Your task to perform on an android device: check google app version Image 0: 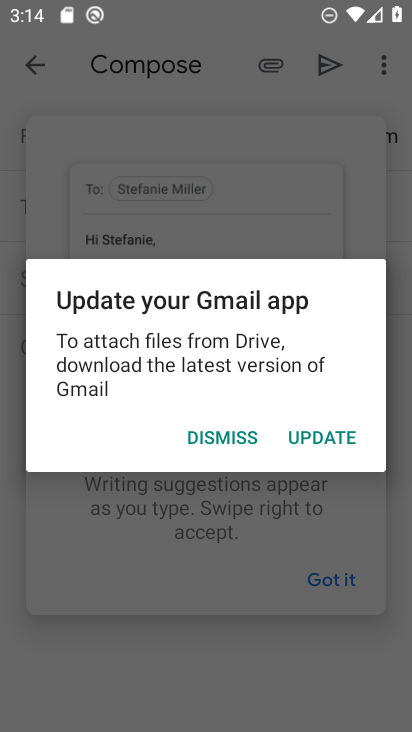
Step 0: press home button
Your task to perform on an android device: check google app version Image 1: 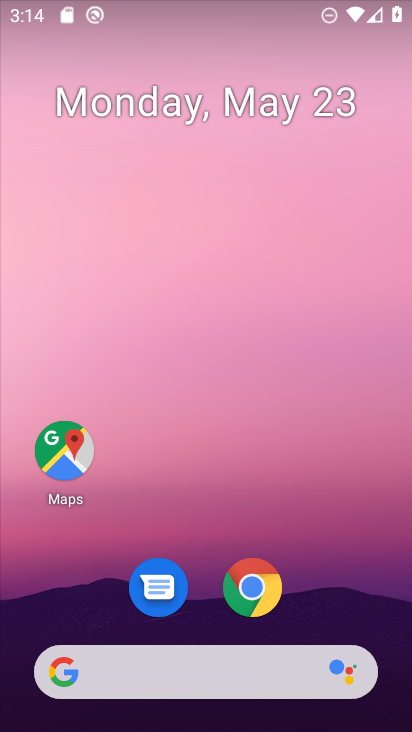
Step 1: click (227, 674)
Your task to perform on an android device: check google app version Image 2: 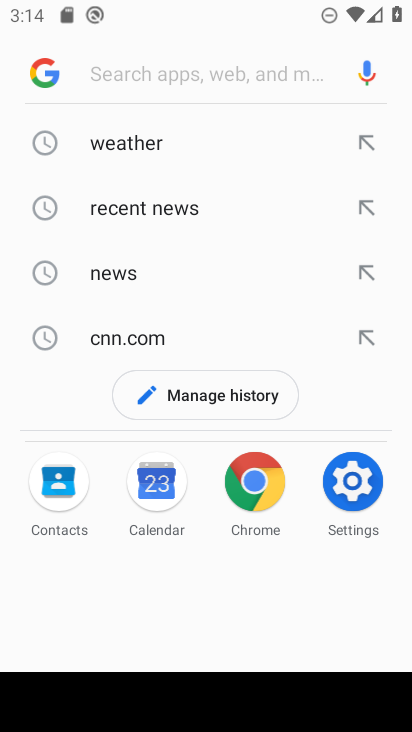
Step 2: click (54, 68)
Your task to perform on an android device: check google app version Image 3: 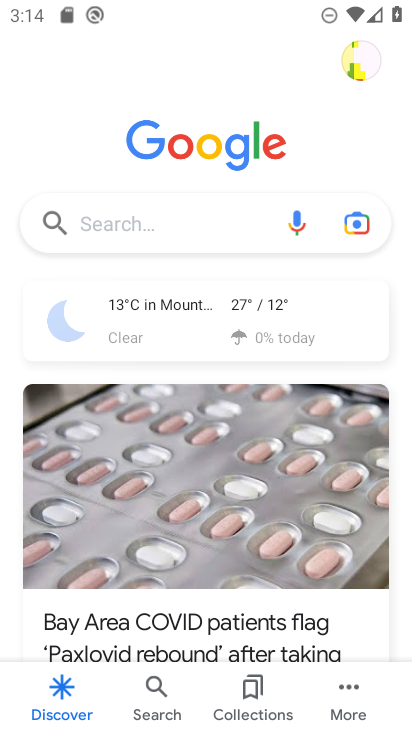
Step 3: click (348, 683)
Your task to perform on an android device: check google app version Image 4: 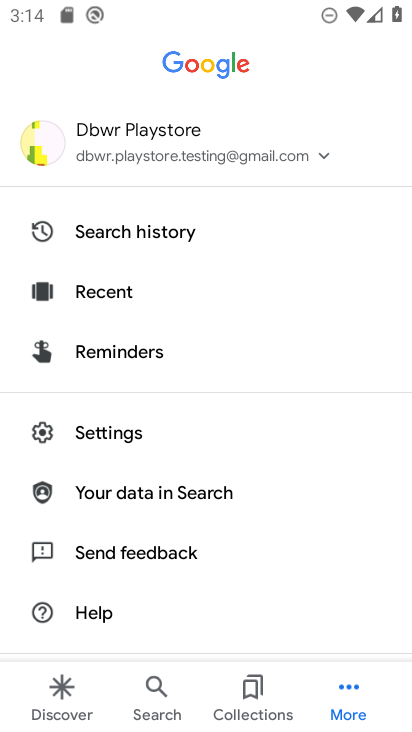
Step 4: click (113, 432)
Your task to perform on an android device: check google app version Image 5: 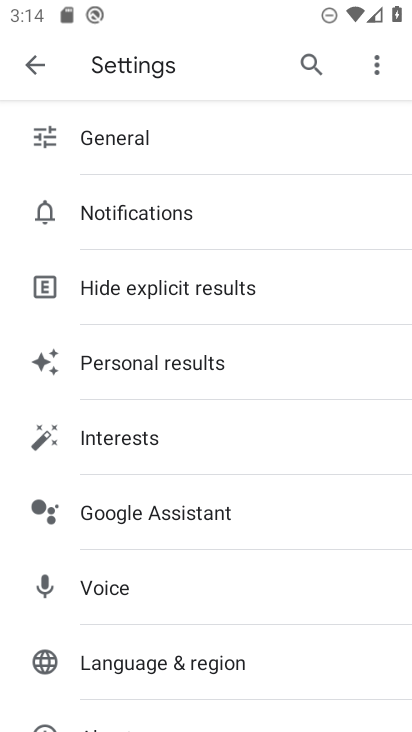
Step 5: drag from (170, 605) to (264, 130)
Your task to perform on an android device: check google app version Image 6: 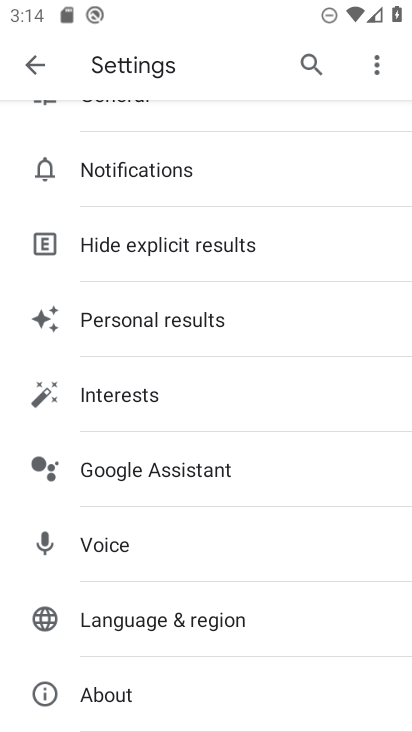
Step 6: click (119, 698)
Your task to perform on an android device: check google app version Image 7: 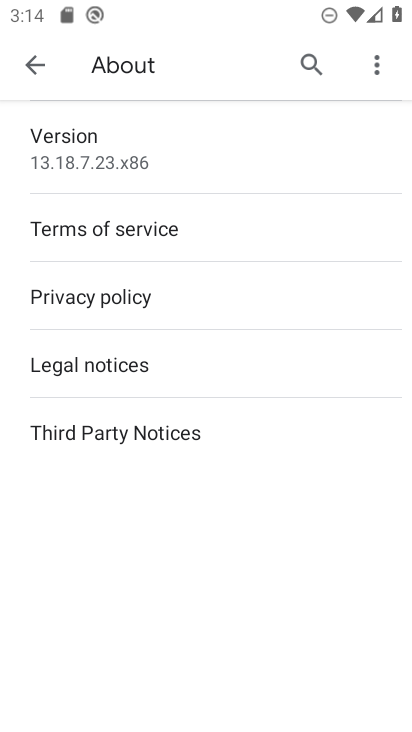
Step 7: task complete